Your task to perform on an android device: check storage Image 0: 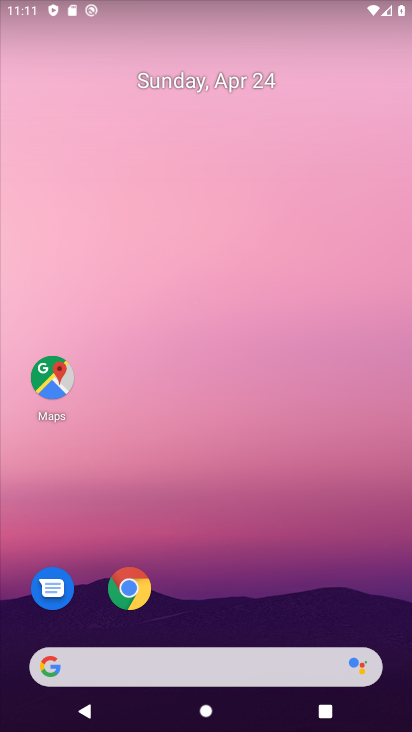
Step 0: drag from (269, 463) to (225, 80)
Your task to perform on an android device: check storage Image 1: 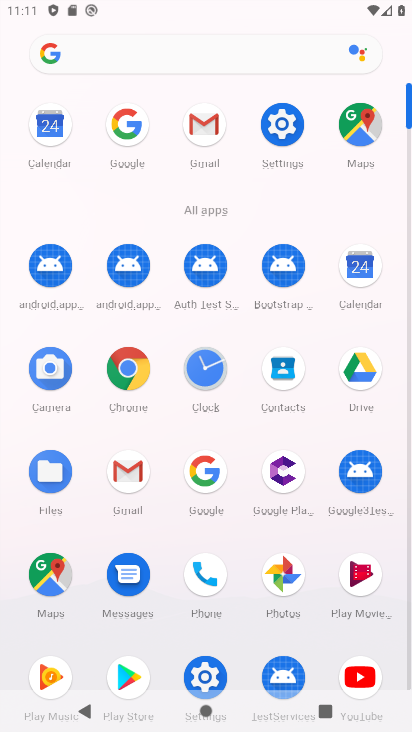
Step 1: click (292, 129)
Your task to perform on an android device: check storage Image 2: 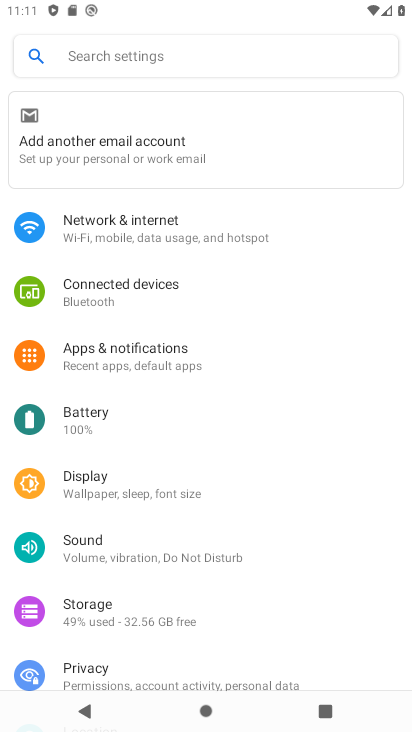
Step 2: click (165, 620)
Your task to perform on an android device: check storage Image 3: 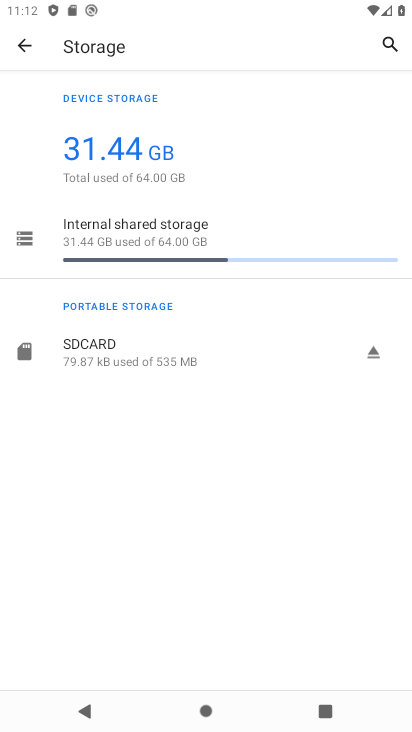
Step 3: task complete